Your task to perform on an android device: delete a single message in the gmail app Image 0: 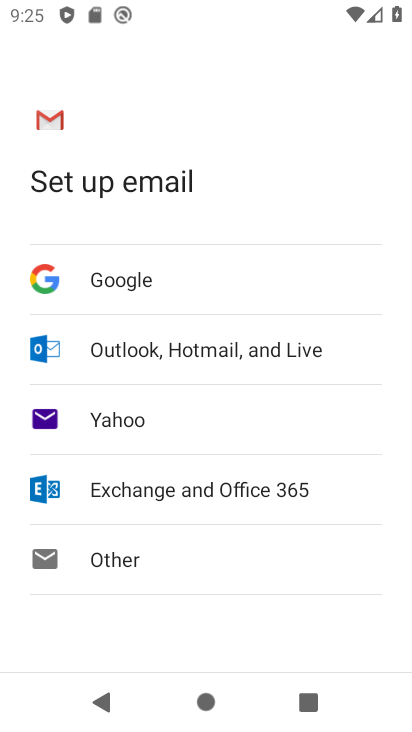
Step 0: press back button
Your task to perform on an android device: delete a single message in the gmail app Image 1: 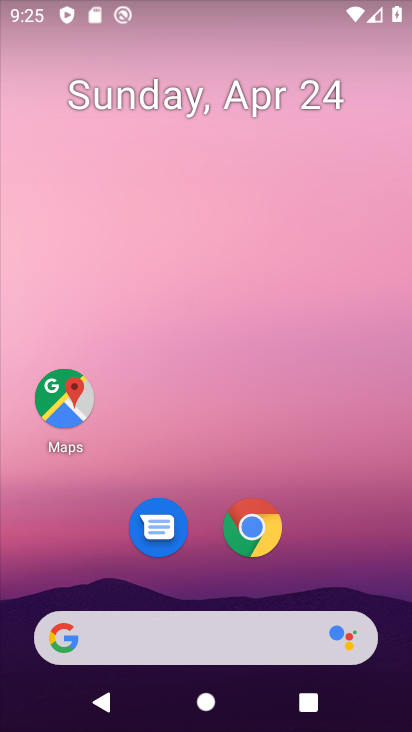
Step 1: drag from (185, 573) to (238, 106)
Your task to perform on an android device: delete a single message in the gmail app Image 2: 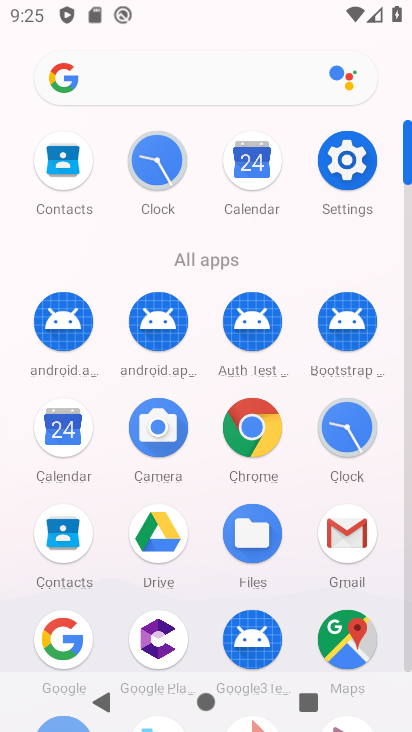
Step 2: click (336, 519)
Your task to perform on an android device: delete a single message in the gmail app Image 3: 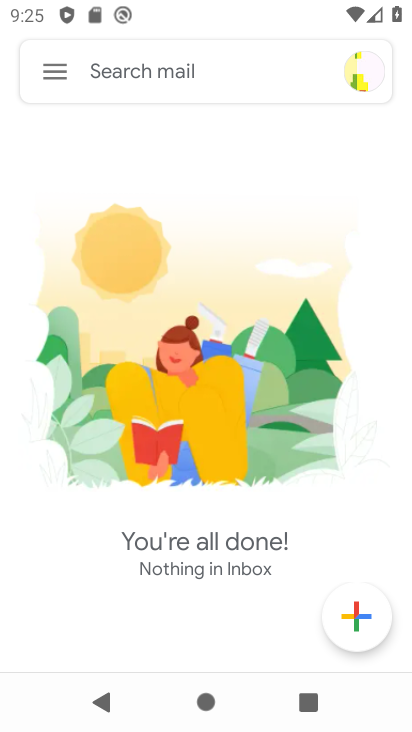
Step 3: click (45, 80)
Your task to perform on an android device: delete a single message in the gmail app Image 4: 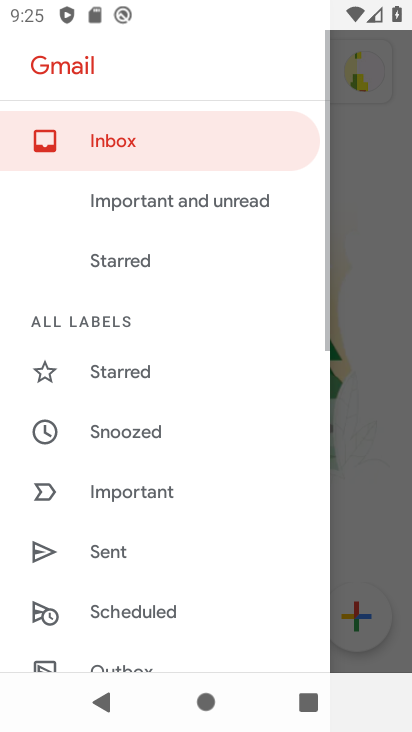
Step 4: drag from (138, 576) to (247, 103)
Your task to perform on an android device: delete a single message in the gmail app Image 5: 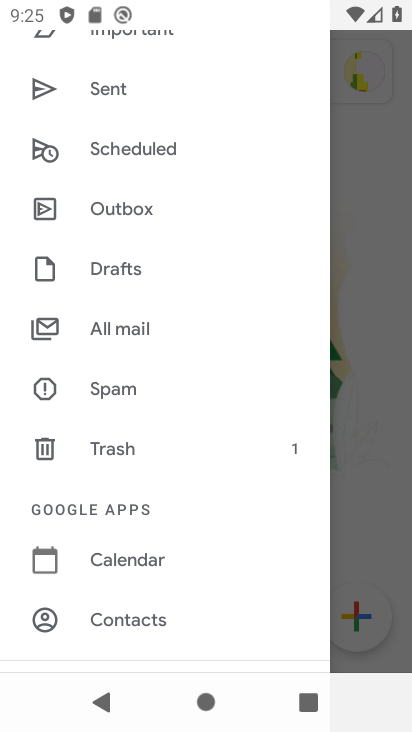
Step 5: click (124, 335)
Your task to perform on an android device: delete a single message in the gmail app Image 6: 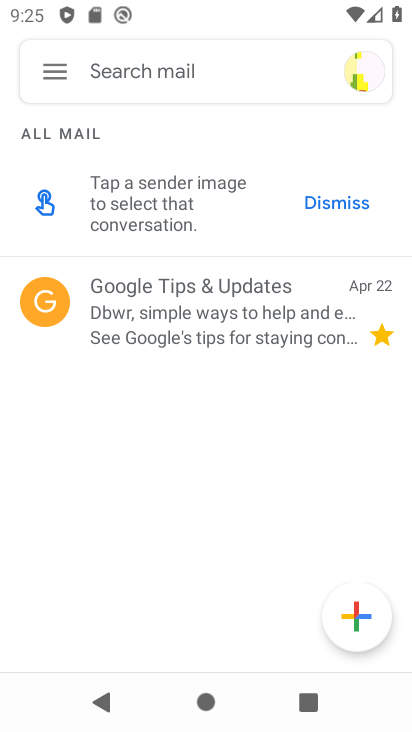
Step 6: click (179, 323)
Your task to perform on an android device: delete a single message in the gmail app Image 7: 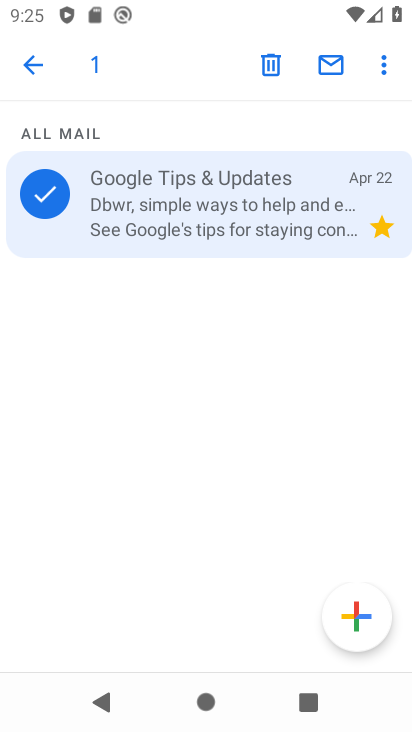
Step 7: click (267, 59)
Your task to perform on an android device: delete a single message in the gmail app Image 8: 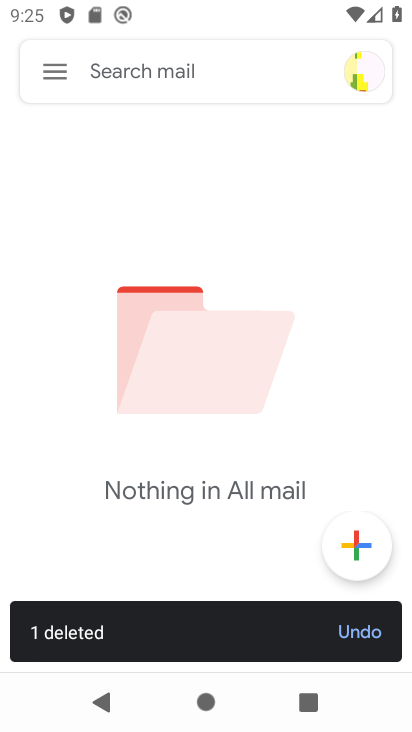
Step 8: task complete